Your task to perform on an android device: turn on javascript in the chrome app Image 0: 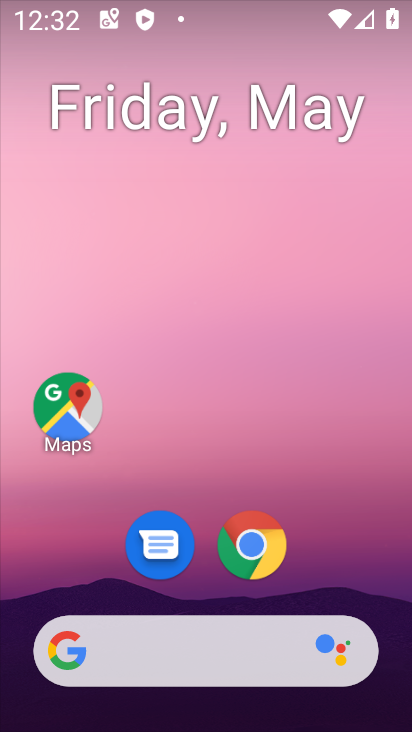
Step 0: click (367, 485)
Your task to perform on an android device: turn on javascript in the chrome app Image 1: 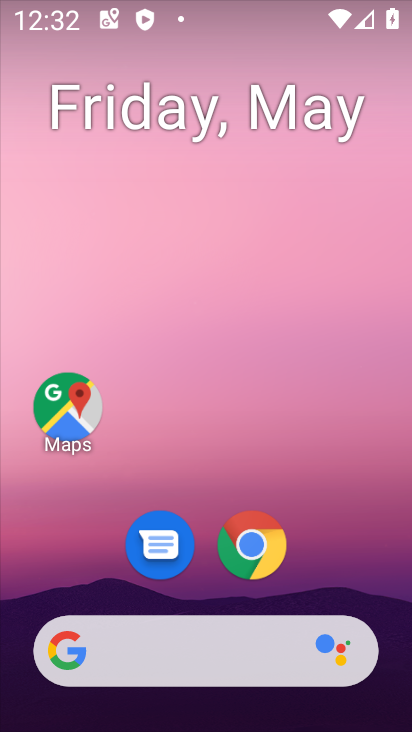
Step 1: drag from (312, 559) to (295, 241)
Your task to perform on an android device: turn on javascript in the chrome app Image 2: 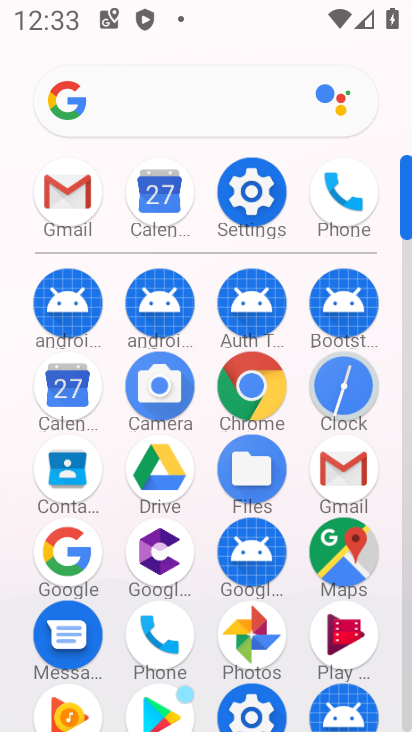
Step 2: click (258, 376)
Your task to perform on an android device: turn on javascript in the chrome app Image 3: 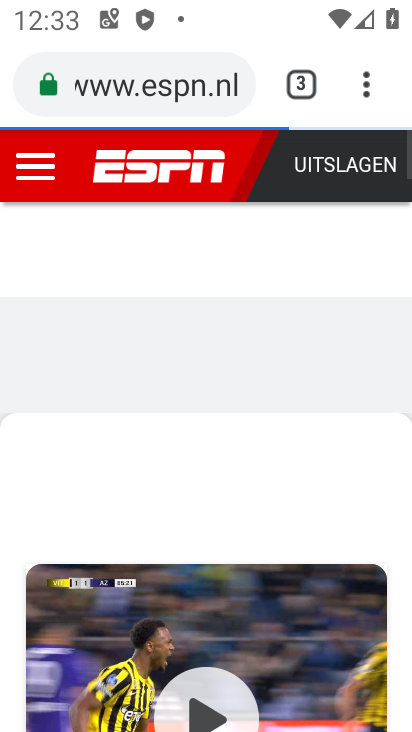
Step 3: click (365, 92)
Your task to perform on an android device: turn on javascript in the chrome app Image 4: 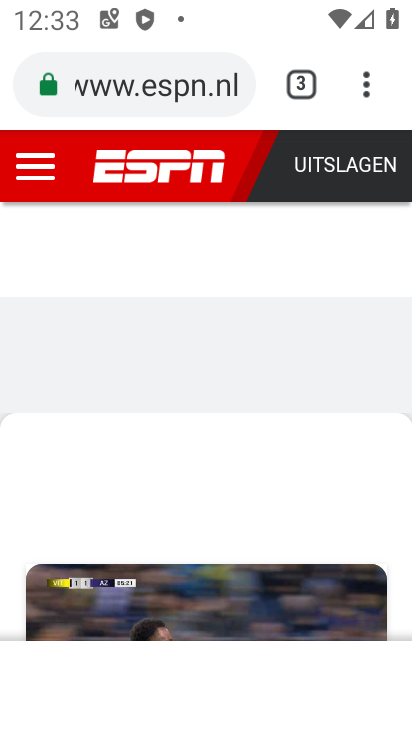
Step 4: click (355, 73)
Your task to perform on an android device: turn on javascript in the chrome app Image 5: 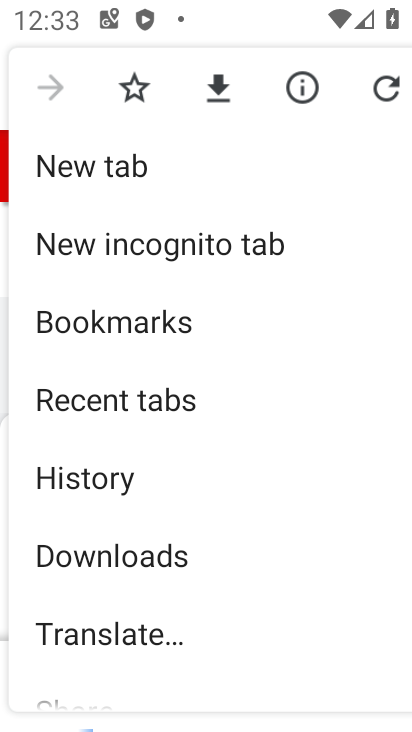
Step 5: drag from (217, 551) to (270, 174)
Your task to perform on an android device: turn on javascript in the chrome app Image 6: 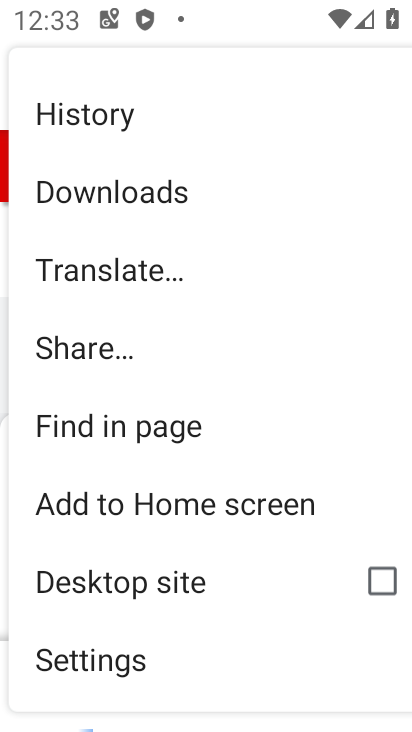
Step 6: click (154, 656)
Your task to perform on an android device: turn on javascript in the chrome app Image 7: 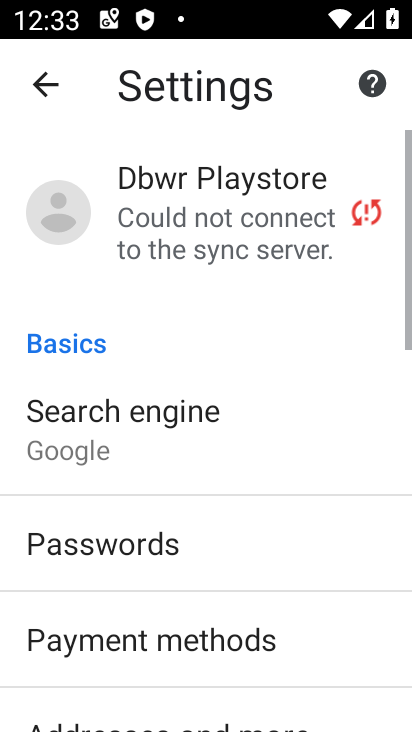
Step 7: drag from (209, 604) to (247, 230)
Your task to perform on an android device: turn on javascript in the chrome app Image 8: 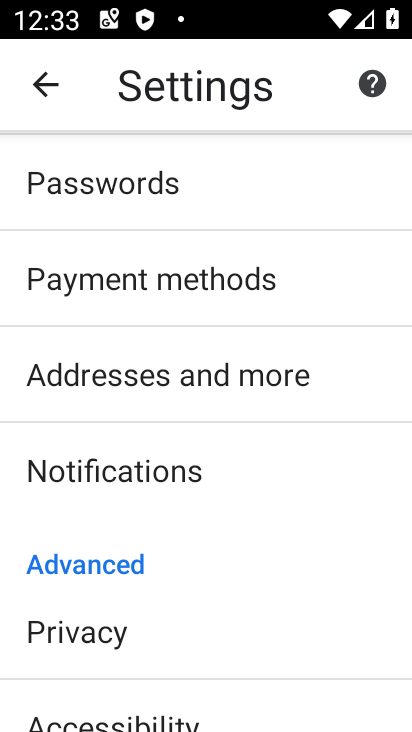
Step 8: drag from (207, 623) to (246, 224)
Your task to perform on an android device: turn on javascript in the chrome app Image 9: 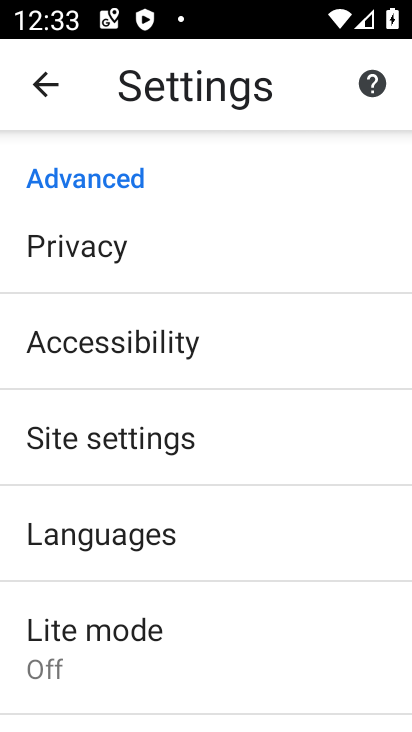
Step 9: click (156, 424)
Your task to perform on an android device: turn on javascript in the chrome app Image 10: 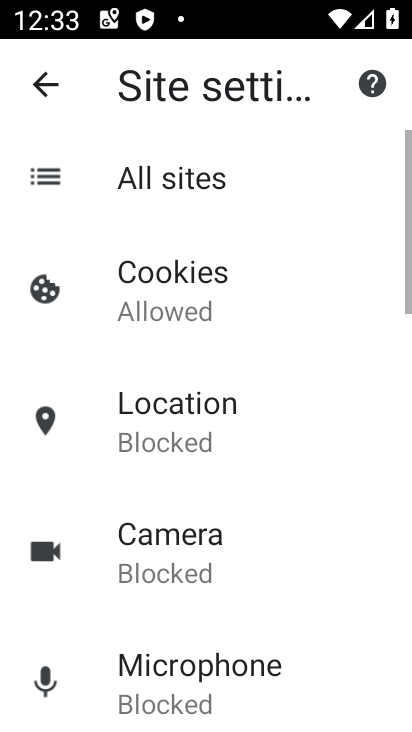
Step 10: drag from (206, 620) to (249, 204)
Your task to perform on an android device: turn on javascript in the chrome app Image 11: 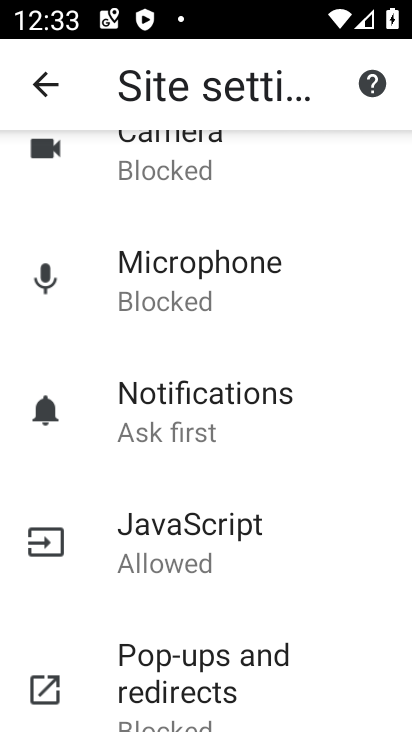
Step 11: click (221, 540)
Your task to perform on an android device: turn on javascript in the chrome app Image 12: 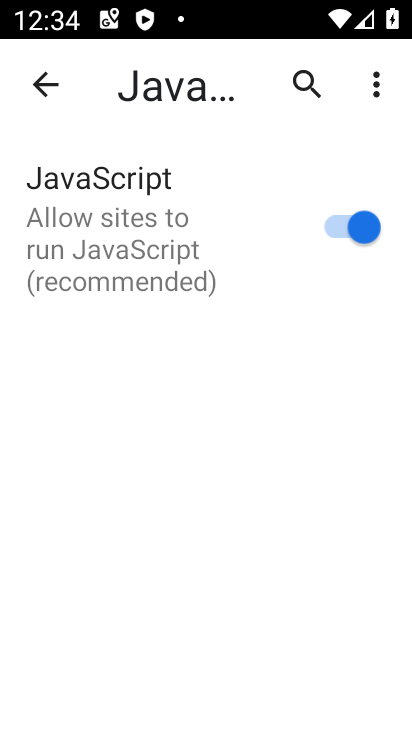
Step 12: task complete